Your task to perform on an android device: change your default location settings in chrome Image 0: 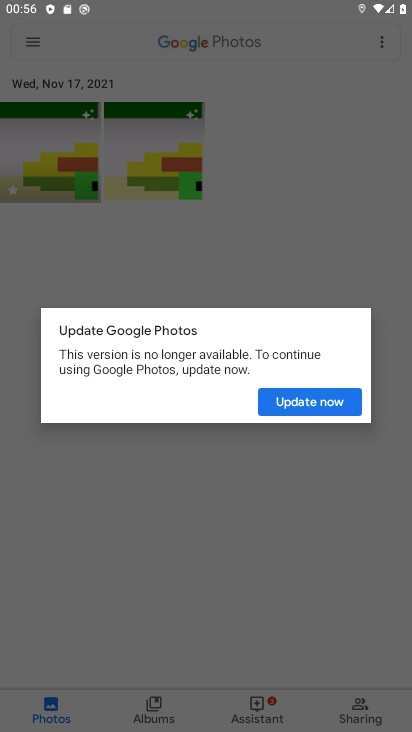
Step 0: press home button
Your task to perform on an android device: change your default location settings in chrome Image 1: 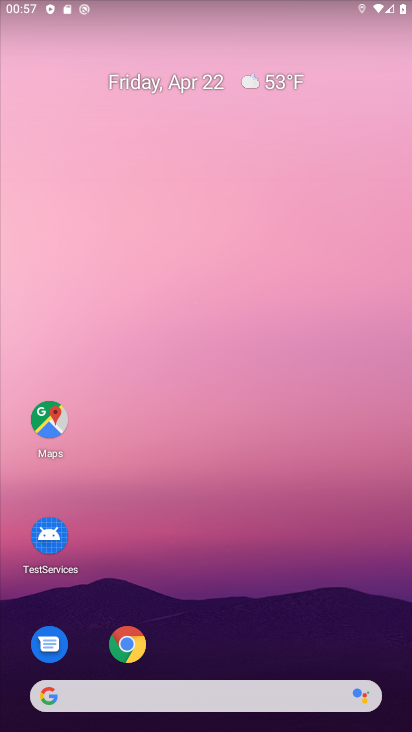
Step 1: drag from (286, 611) to (352, 54)
Your task to perform on an android device: change your default location settings in chrome Image 2: 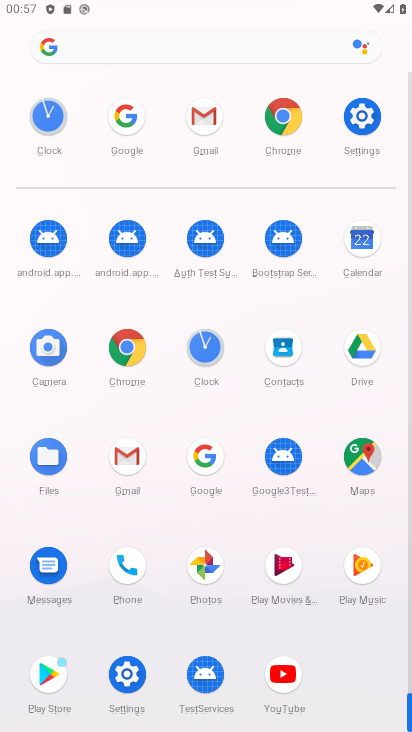
Step 2: click (133, 357)
Your task to perform on an android device: change your default location settings in chrome Image 3: 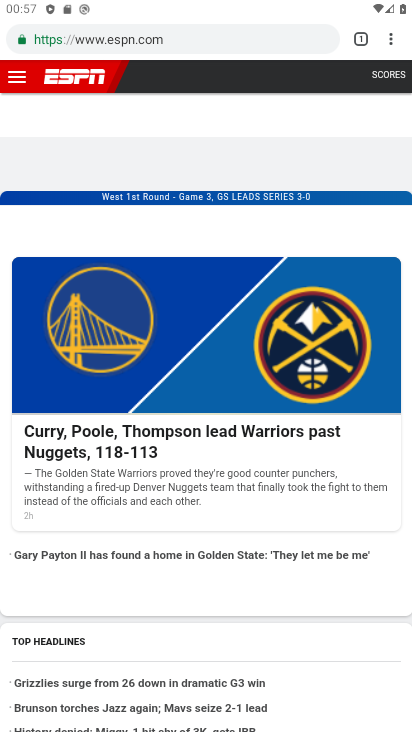
Step 3: click (392, 37)
Your task to perform on an android device: change your default location settings in chrome Image 4: 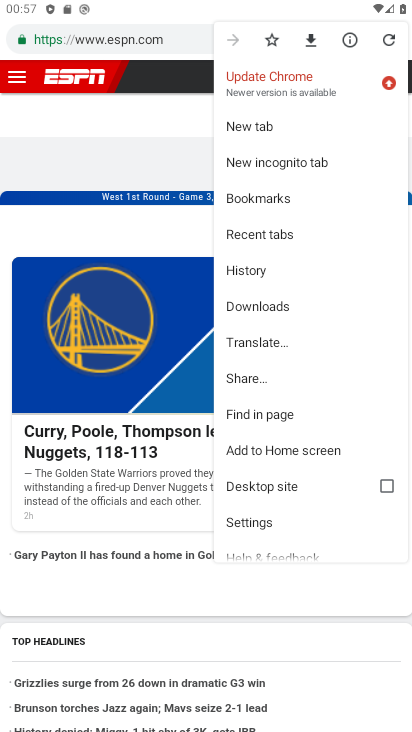
Step 4: click (267, 525)
Your task to perform on an android device: change your default location settings in chrome Image 5: 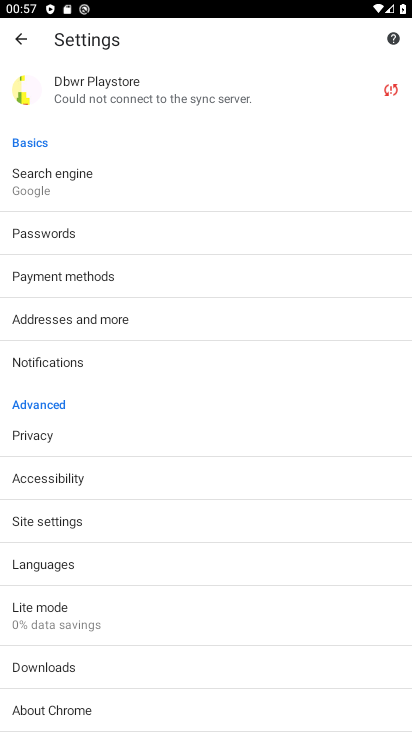
Step 5: drag from (103, 641) to (206, 431)
Your task to perform on an android device: change your default location settings in chrome Image 6: 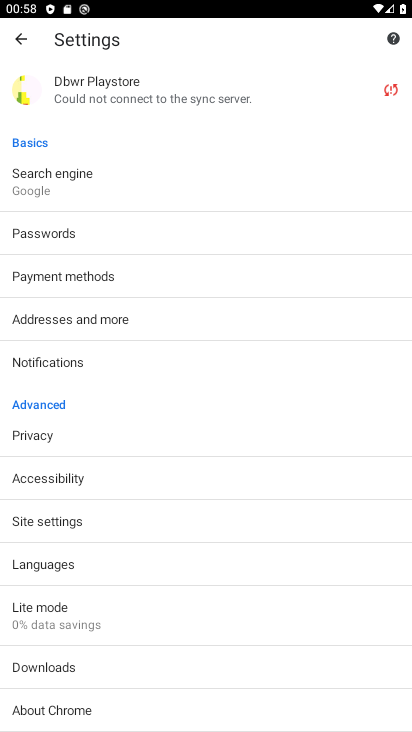
Step 6: click (82, 522)
Your task to perform on an android device: change your default location settings in chrome Image 7: 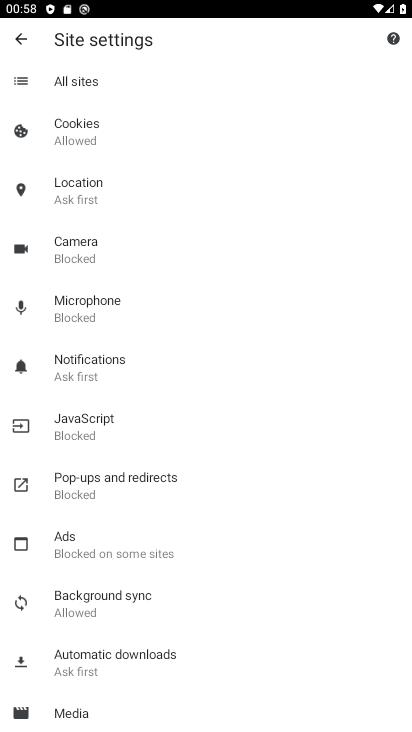
Step 7: click (57, 191)
Your task to perform on an android device: change your default location settings in chrome Image 8: 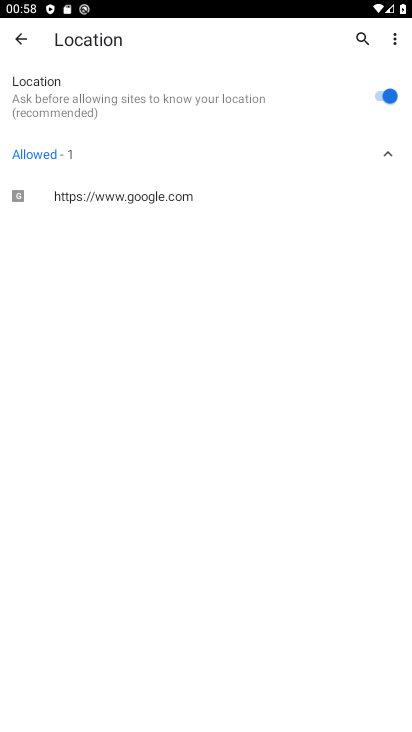
Step 8: click (386, 95)
Your task to perform on an android device: change your default location settings in chrome Image 9: 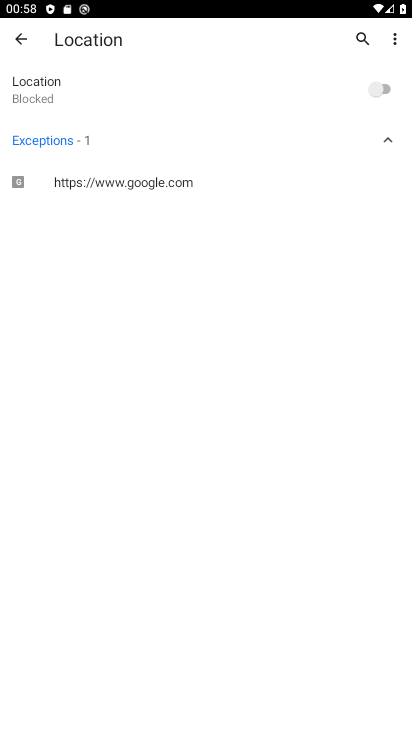
Step 9: task complete